Your task to perform on an android device: turn on the 12-hour format for clock Image 0: 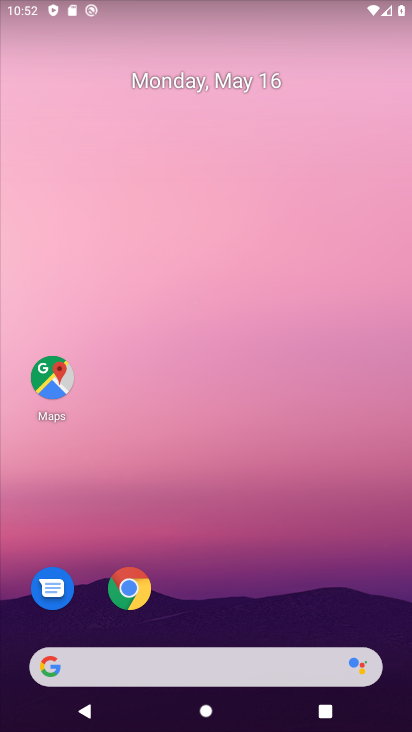
Step 0: drag from (305, 603) to (355, 147)
Your task to perform on an android device: turn on the 12-hour format for clock Image 1: 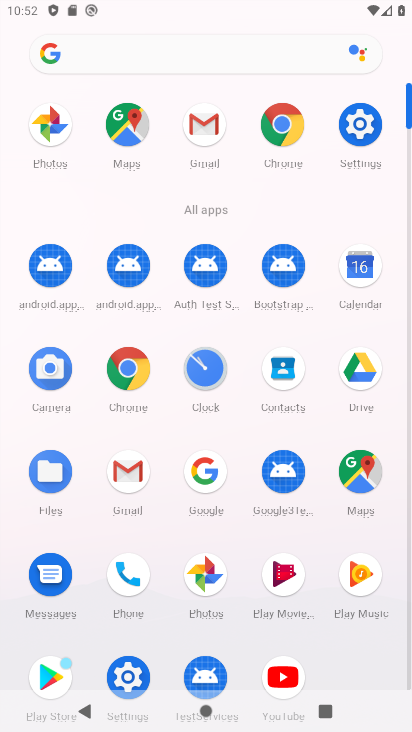
Step 1: click (215, 374)
Your task to perform on an android device: turn on the 12-hour format for clock Image 2: 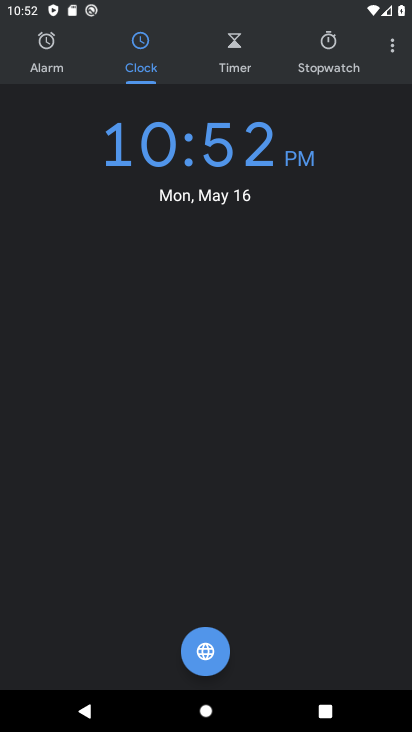
Step 2: click (394, 51)
Your task to perform on an android device: turn on the 12-hour format for clock Image 3: 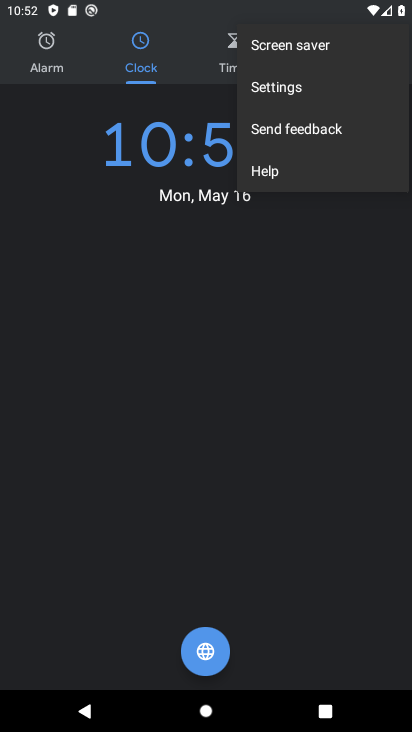
Step 3: click (300, 91)
Your task to perform on an android device: turn on the 12-hour format for clock Image 4: 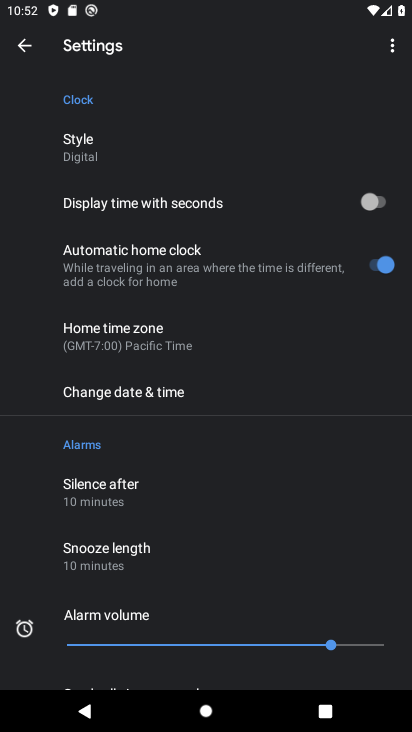
Step 4: drag from (317, 502) to (310, 365)
Your task to perform on an android device: turn on the 12-hour format for clock Image 5: 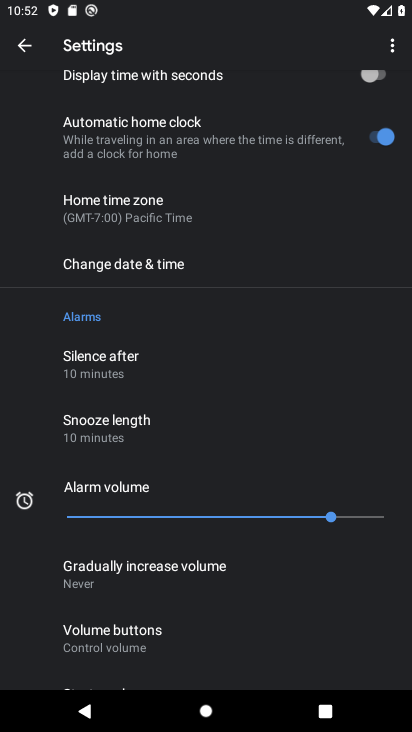
Step 5: drag from (275, 600) to (292, 488)
Your task to perform on an android device: turn on the 12-hour format for clock Image 6: 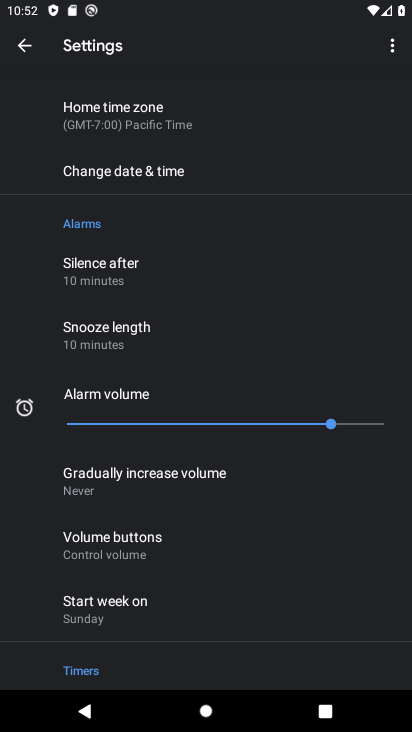
Step 6: drag from (301, 589) to (315, 436)
Your task to perform on an android device: turn on the 12-hour format for clock Image 7: 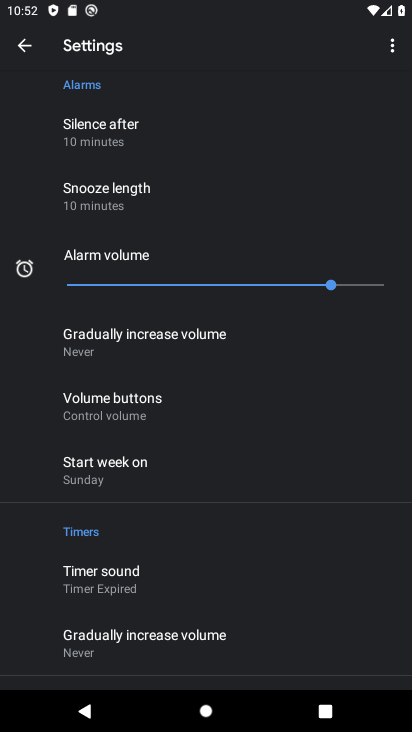
Step 7: drag from (285, 589) to (311, 486)
Your task to perform on an android device: turn on the 12-hour format for clock Image 8: 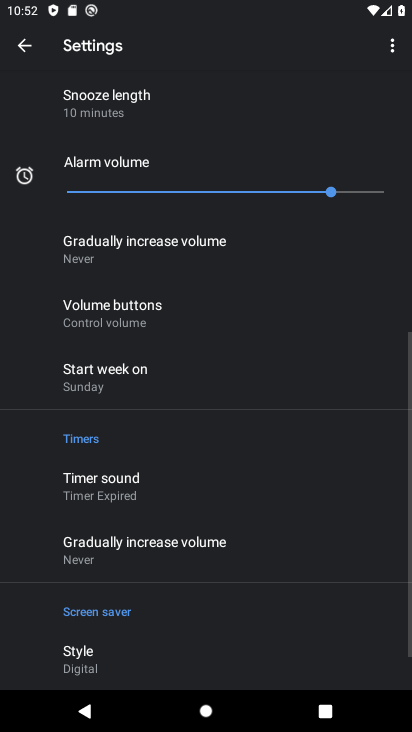
Step 8: drag from (294, 596) to (310, 412)
Your task to perform on an android device: turn on the 12-hour format for clock Image 9: 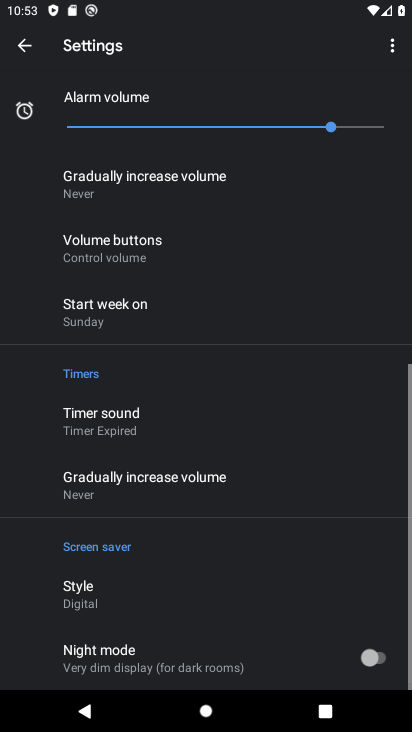
Step 9: drag from (325, 307) to (311, 465)
Your task to perform on an android device: turn on the 12-hour format for clock Image 10: 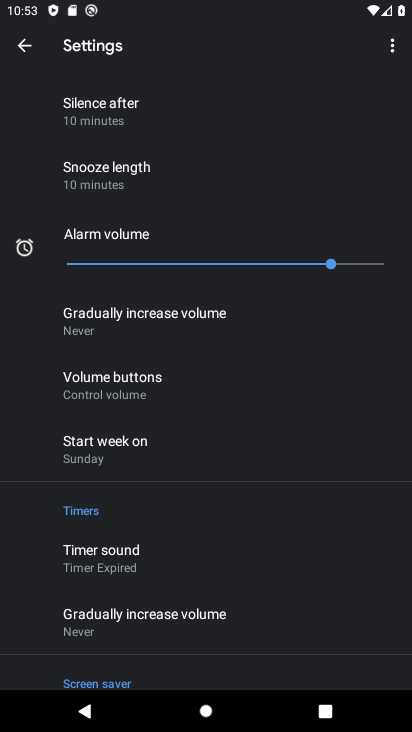
Step 10: drag from (300, 318) to (298, 468)
Your task to perform on an android device: turn on the 12-hour format for clock Image 11: 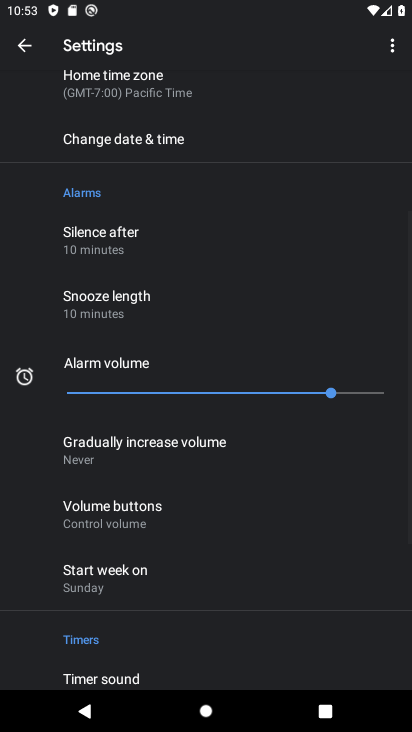
Step 11: drag from (291, 283) to (281, 496)
Your task to perform on an android device: turn on the 12-hour format for clock Image 12: 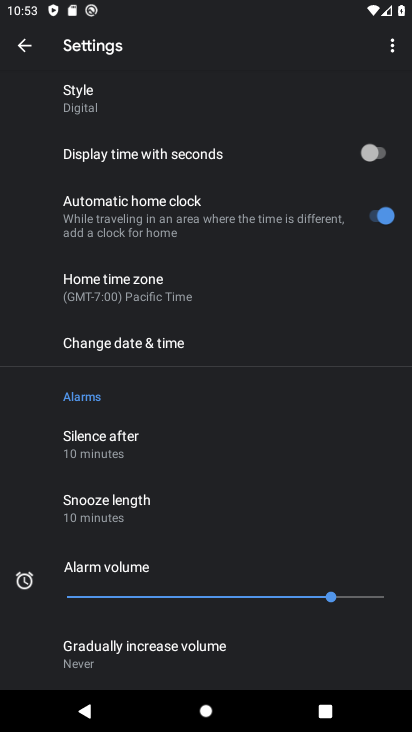
Step 12: drag from (286, 304) to (250, 451)
Your task to perform on an android device: turn on the 12-hour format for clock Image 13: 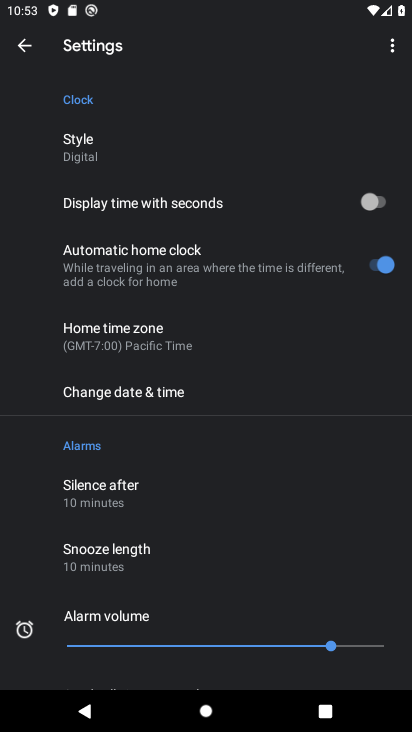
Step 13: click (154, 381)
Your task to perform on an android device: turn on the 12-hour format for clock Image 14: 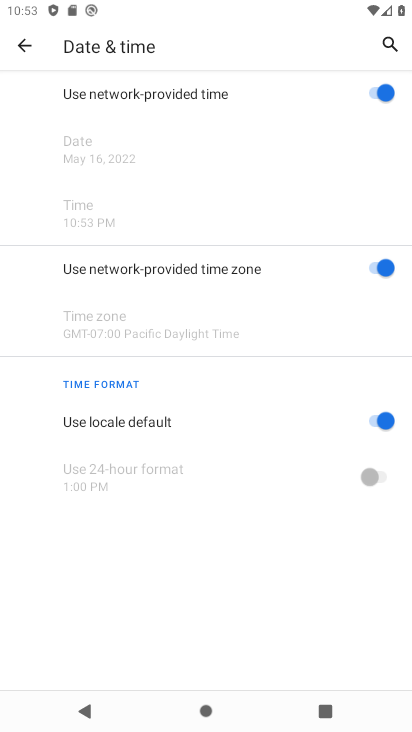
Step 14: click (370, 431)
Your task to perform on an android device: turn on the 12-hour format for clock Image 15: 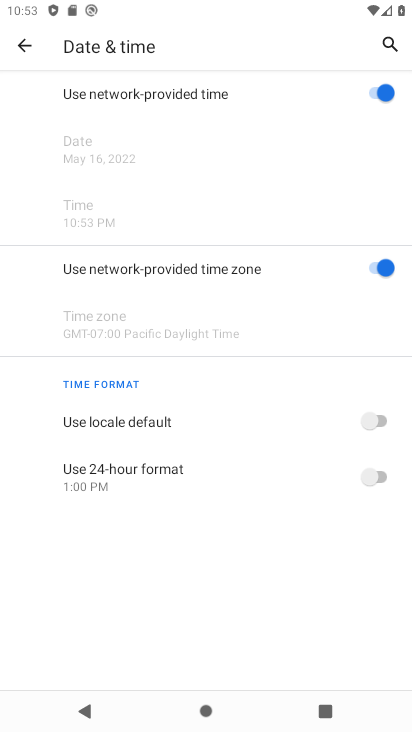
Step 15: task complete